Your task to perform on an android device: turn on translation in the chrome app Image 0: 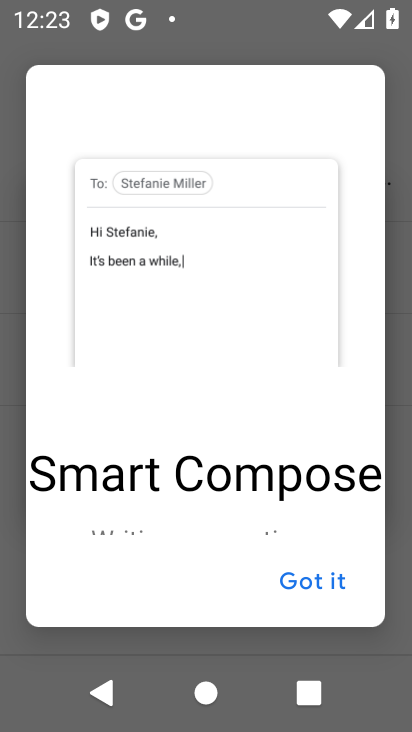
Step 0: press home button
Your task to perform on an android device: turn on translation in the chrome app Image 1: 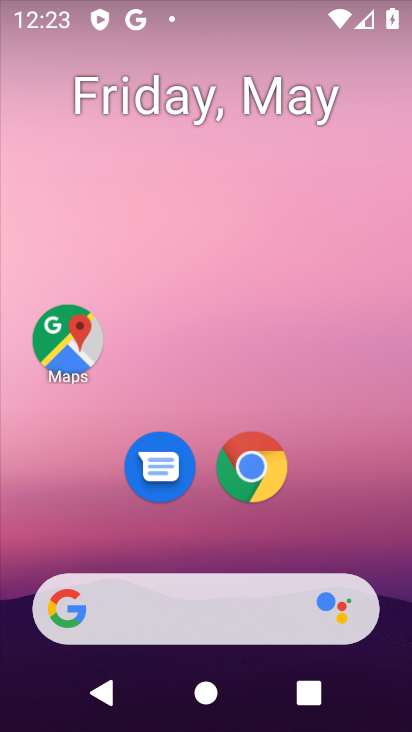
Step 1: click (253, 468)
Your task to perform on an android device: turn on translation in the chrome app Image 2: 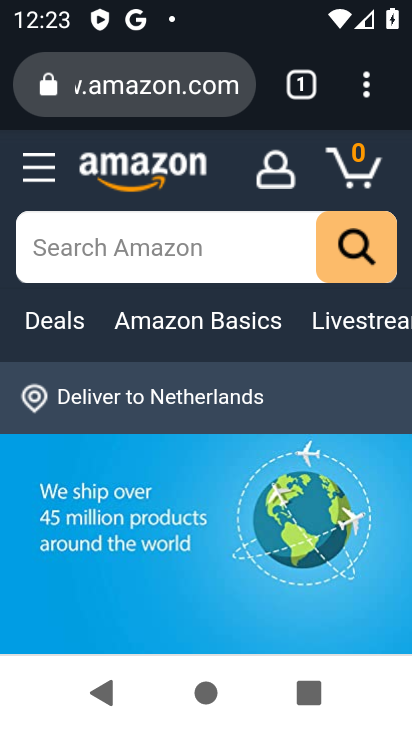
Step 2: click (368, 85)
Your task to perform on an android device: turn on translation in the chrome app Image 3: 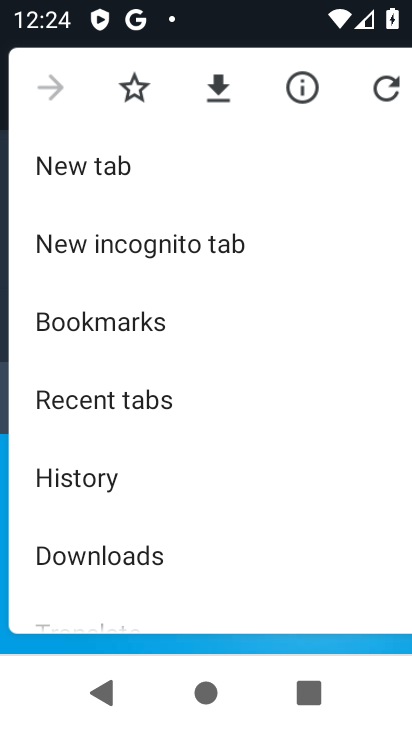
Step 3: drag from (161, 523) to (187, 393)
Your task to perform on an android device: turn on translation in the chrome app Image 4: 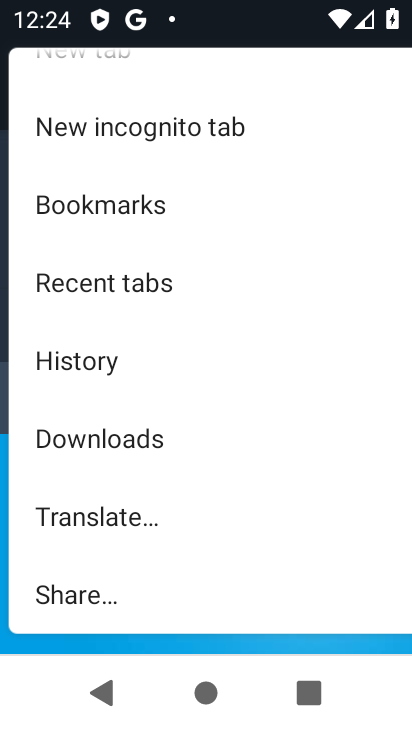
Step 4: drag from (191, 522) to (209, 414)
Your task to perform on an android device: turn on translation in the chrome app Image 5: 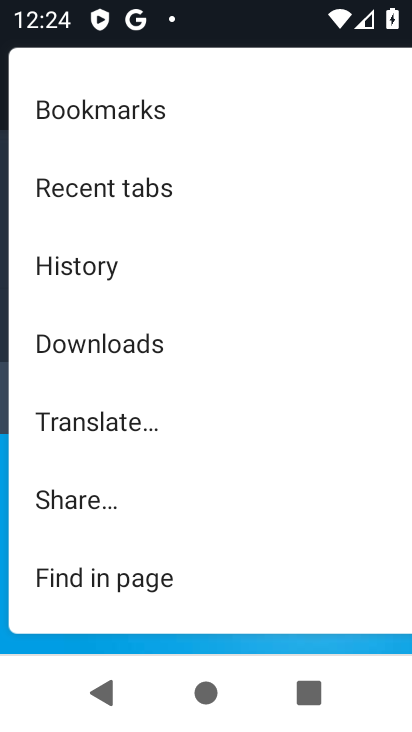
Step 5: drag from (157, 498) to (211, 355)
Your task to perform on an android device: turn on translation in the chrome app Image 6: 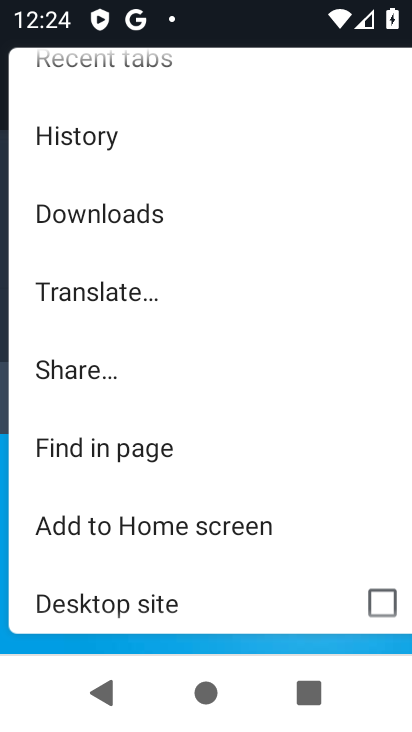
Step 6: drag from (161, 494) to (213, 348)
Your task to perform on an android device: turn on translation in the chrome app Image 7: 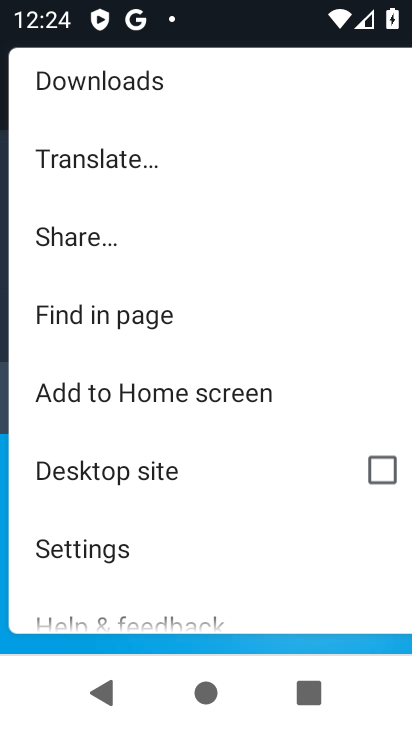
Step 7: drag from (125, 510) to (166, 384)
Your task to perform on an android device: turn on translation in the chrome app Image 8: 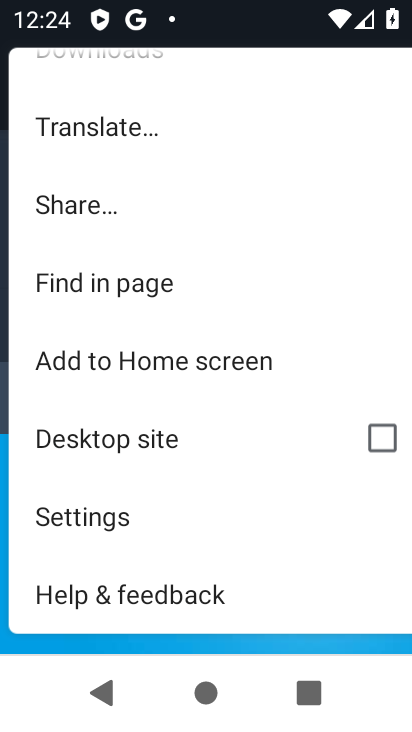
Step 8: click (96, 514)
Your task to perform on an android device: turn on translation in the chrome app Image 9: 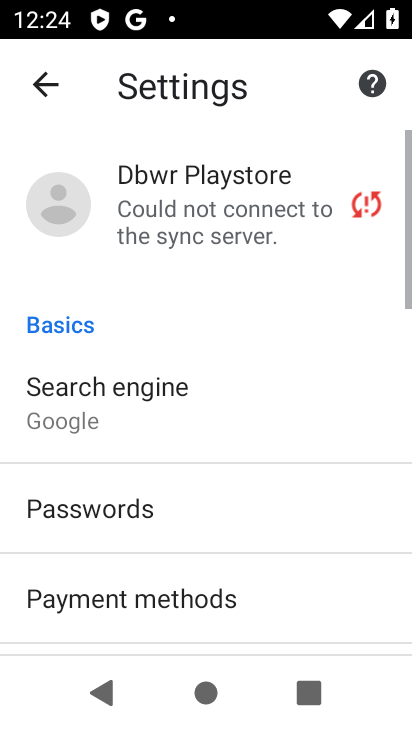
Step 9: drag from (167, 516) to (219, 386)
Your task to perform on an android device: turn on translation in the chrome app Image 10: 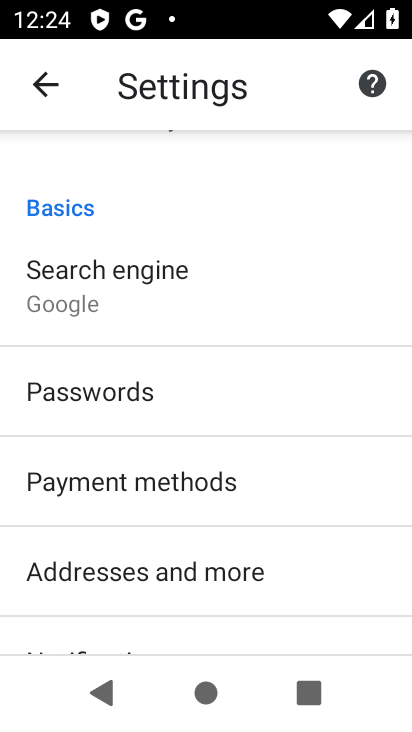
Step 10: drag from (146, 533) to (210, 347)
Your task to perform on an android device: turn on translation in the chrome app Image 11: 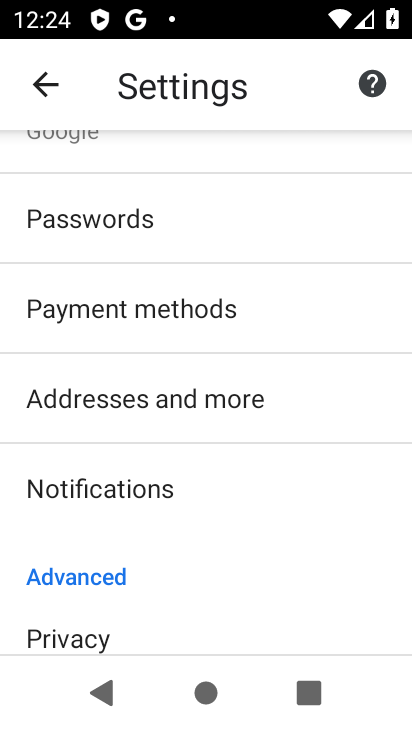
Step 11: drag from (152, 534) to (209, 382)
Your task to perform on an android device: turn on translation in the chrome app Image 12: 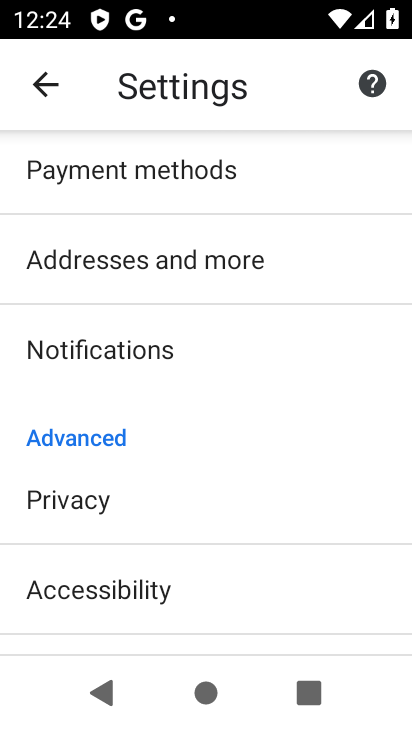
Step 12: drag from (139, 520) to (224, 391)
Your task to perform on an android device: turn on translation in the chrome app Image 13: 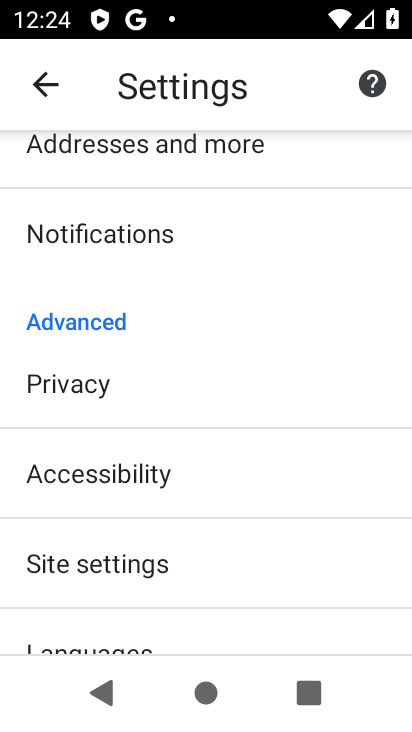
Step 13: drag from (100, 529) to (211, 398)
Your task to perform on an android device: turn on translation in the chrome app Image 14: 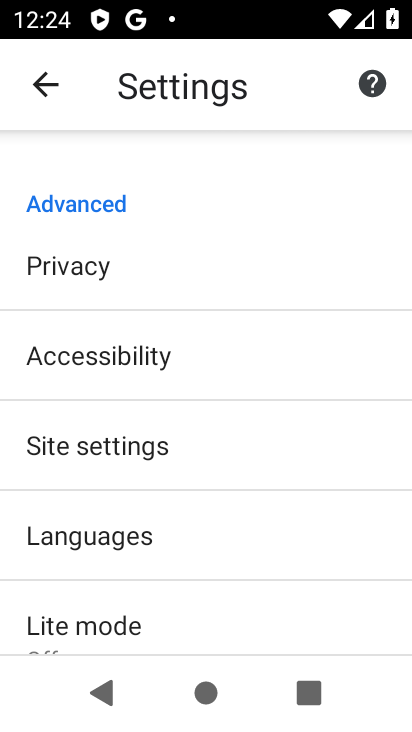
Step 14: click (80, 533)
Your task to perform on an android device: turn on translation in the chrome app Image 15: 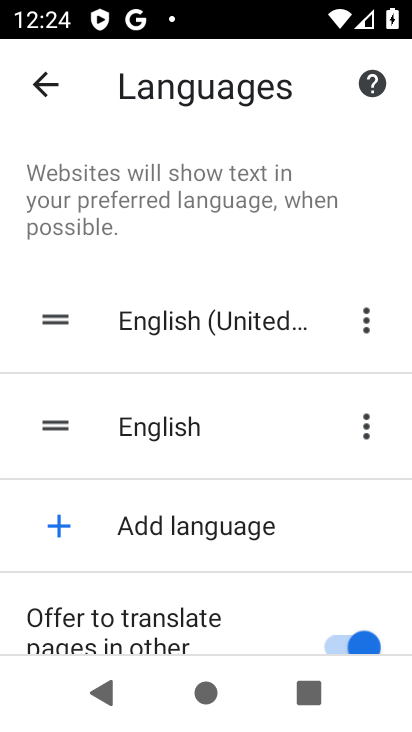
Step 15: task complete